Your task to perform on an android device: clear all cookies in the chrome app Image 0: 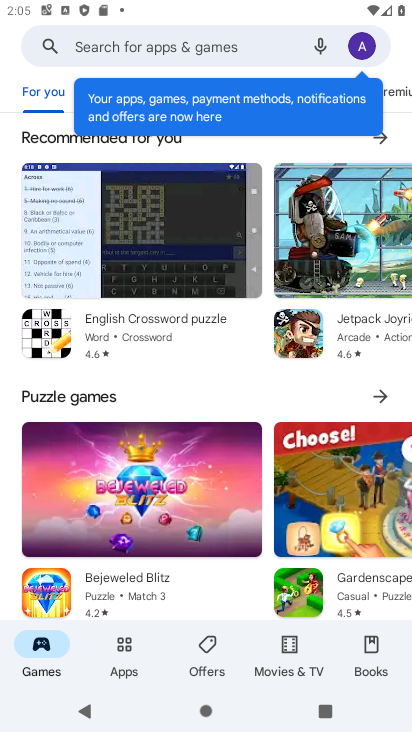
Step 0: press home button
Your task to perform on an android device: clear all cookies in the chrome app Image 1: 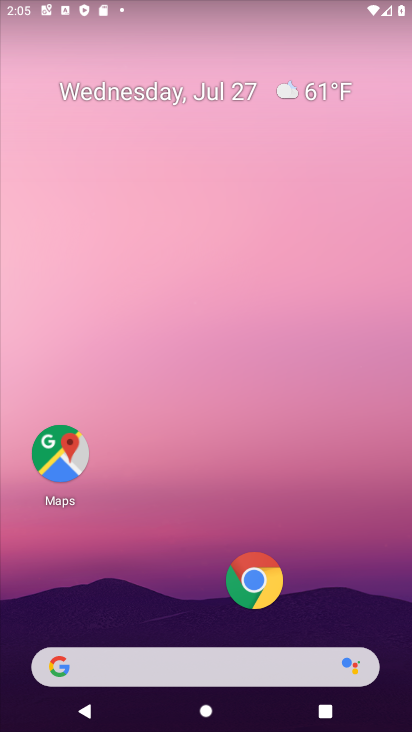
Step 1: click (263, 579)
Your task to perform on an android device: clear all cookies in the chrome app Image 2: 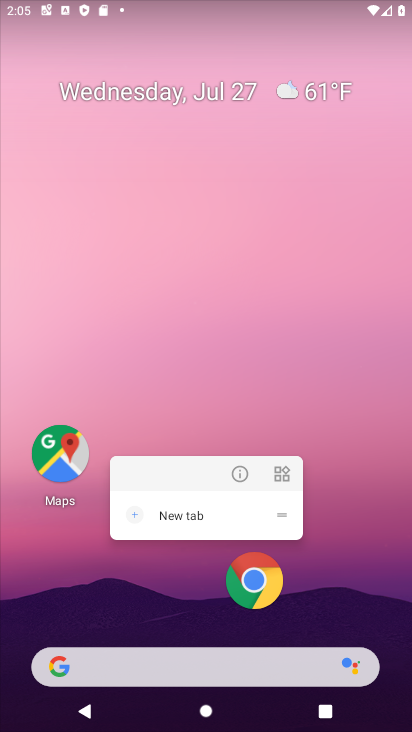
Step 2: click (248, 585)
Your task to perform on an android device: clear all cookies in the chrome app Image 3: 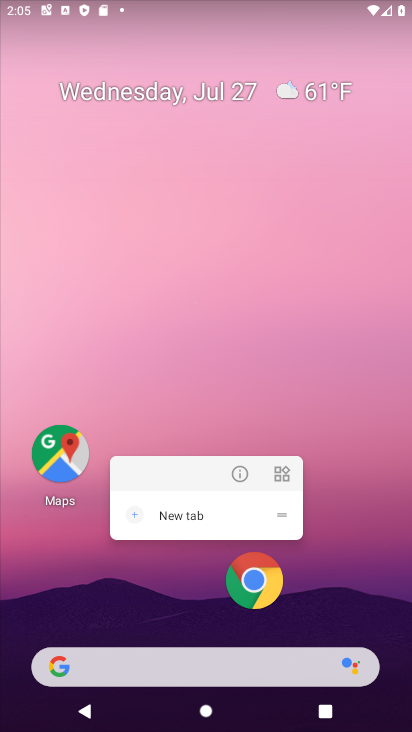
Step 3: click (248, 585)
Your task to perform on an android device: clear all cookies in the chrome app Image 4: 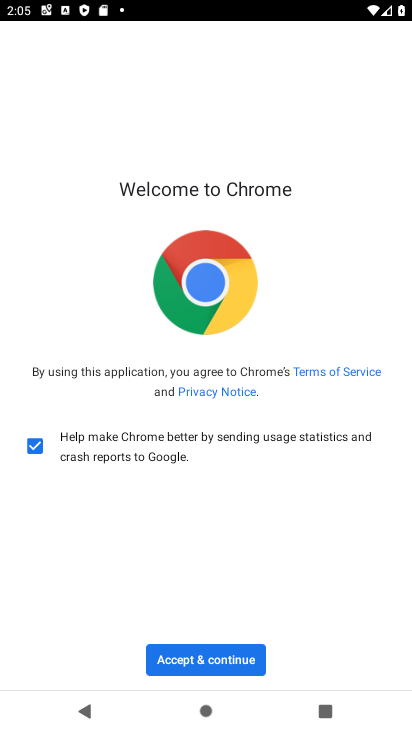
Step 4: click (230, 652)
Your task to perform on an android device: clear all cookies in the chrome app Image 5: 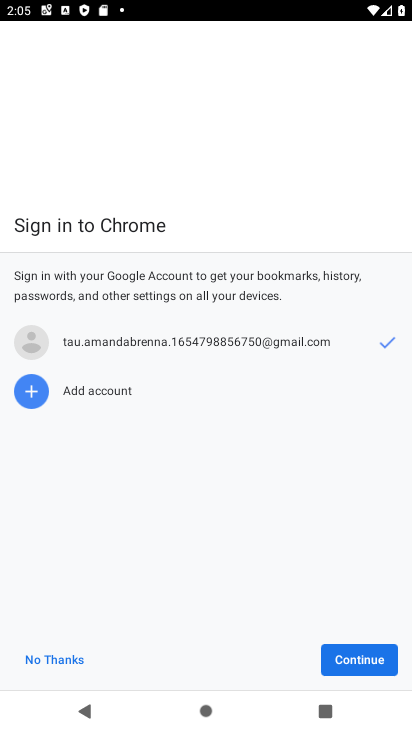
Step 5: click (324, 663)
Your task to perform on an android device: clear all cookies in the chrome app Image 6: 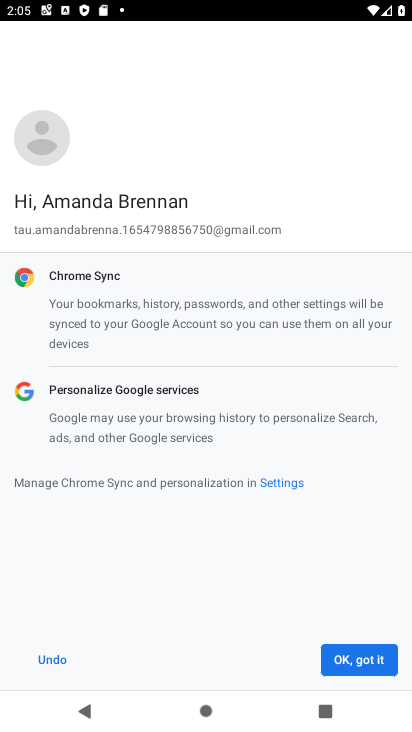
Step 6: click (363, 664)
Your task to perform on an android device: clear all cookies in the chrome app Image 7: 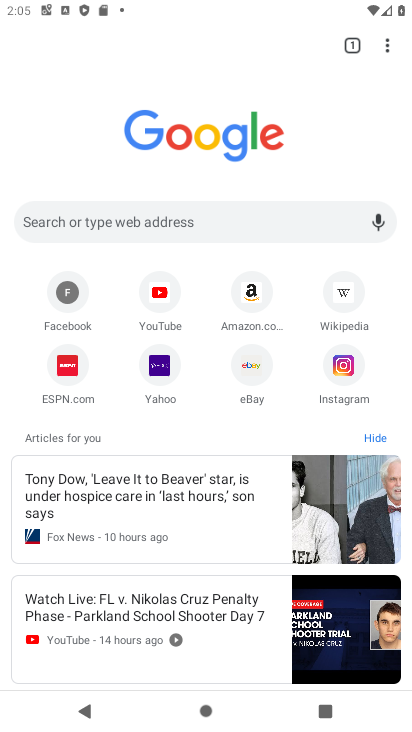
Step 7: click (385, 32)
Your task to perform on an android device: clear all cookies in the chrome app Image 8: 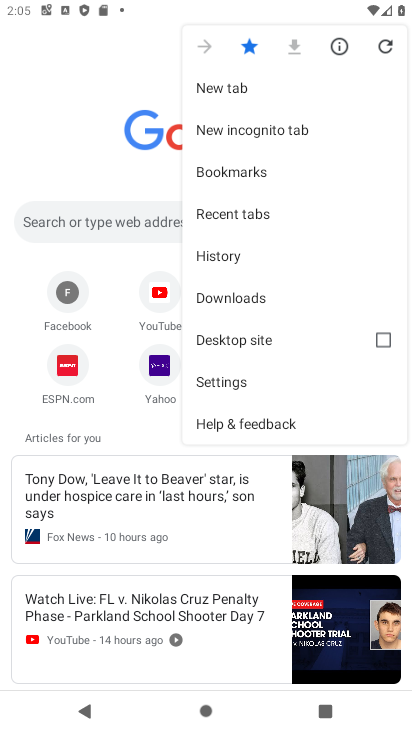
Step 8: click (272, 250)
Your task to perform on an android device: clear all cookies in the chrome app Image 9: 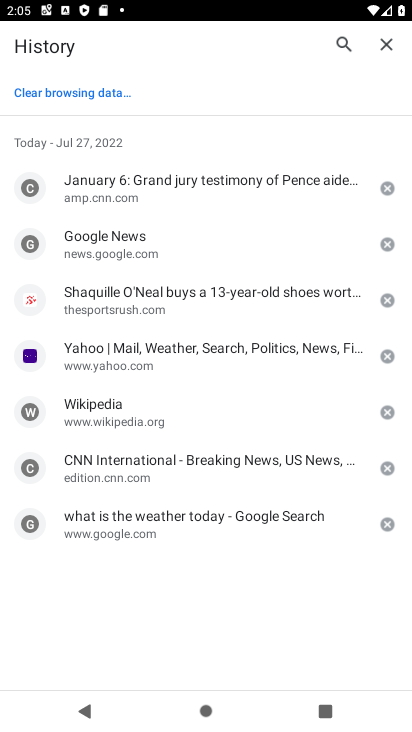
Step 9: click (71, 97)
Your task to perform on an android device: clear all cookies in the chrome app Image 10: 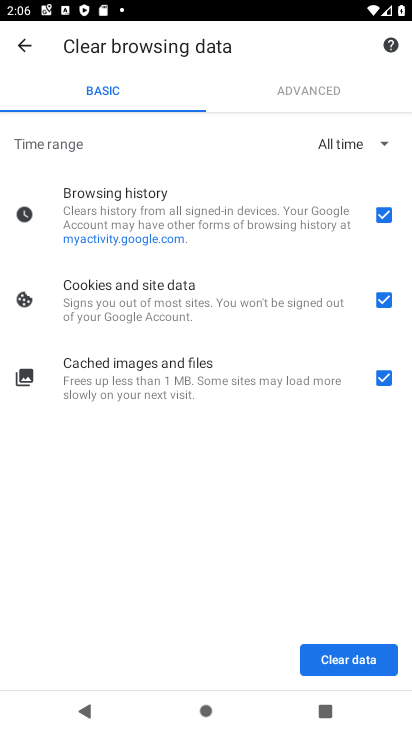
Step 10: click (348, 650)
Your task to perform on an android device: clear all cookies in the chrome app Image 11: 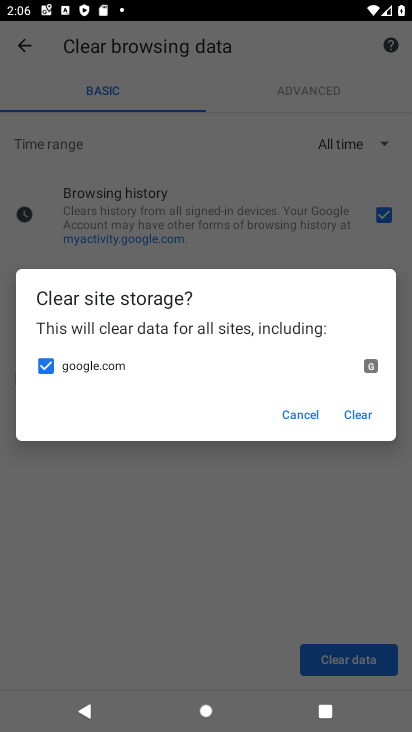
Step 11: click (367, 414)
Your task to perform on an android device: clear all cookies in the chrome app Image 12: 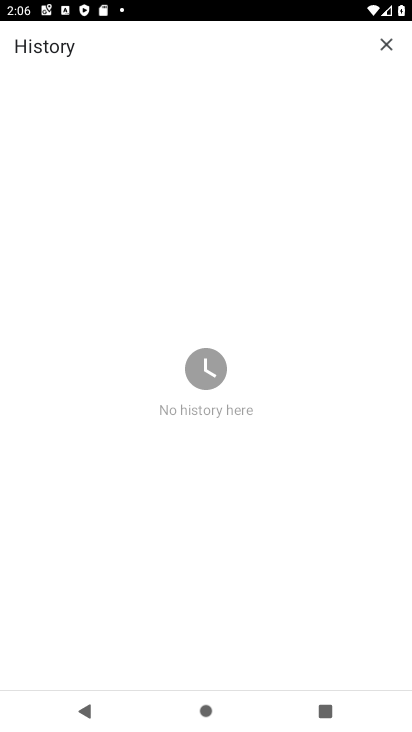
Step 12: task complete